Your task to perform on an android device: Show me the alarms in the clock app Image 0: 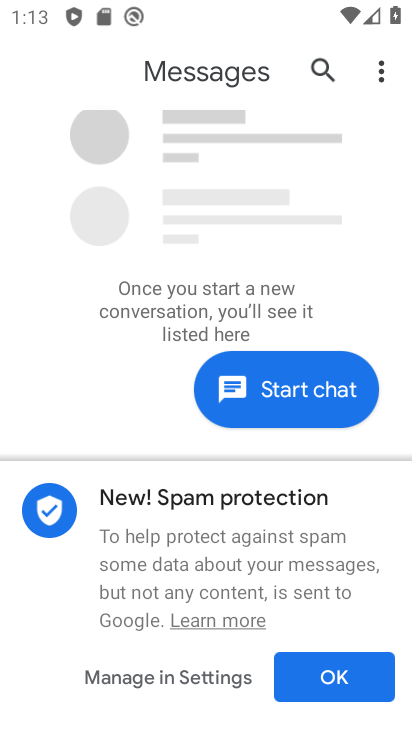
Step 0: press home button
Your task to perform on an android device: Show me the alarms in the clock app Image 1: 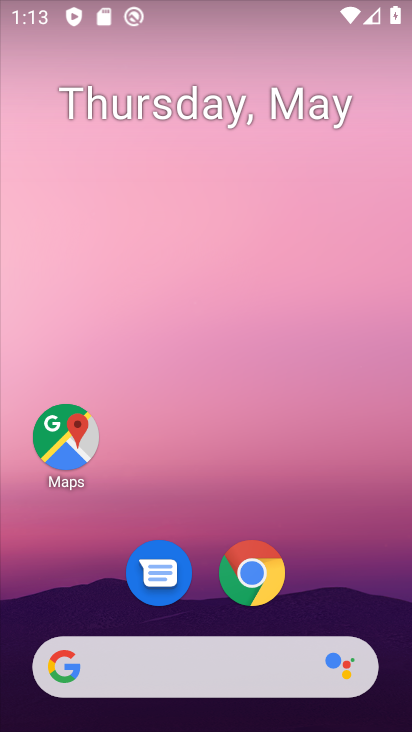
Step 1: drag from (214, 472) to (242, 69)
Your task to perform on an android device: Show me the alarms in the clock app Image 2: 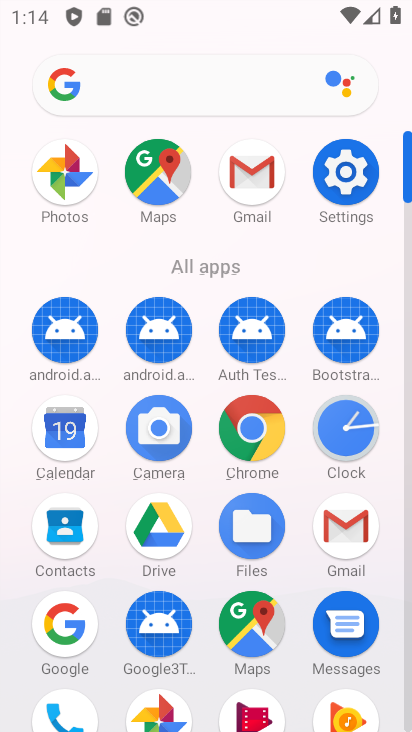
Step 2: click (354, 417)
Your task to perform on an android device: Show me the alarms in the clock app Image 3: 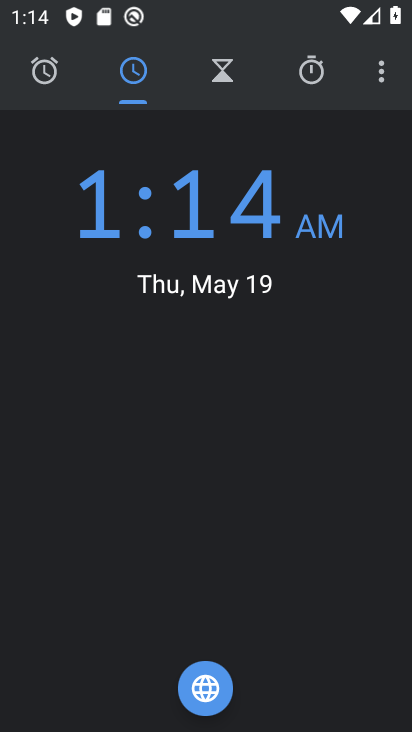
Step 3: click (45, 75)
Your task to perform on an android device: Show me the alarms in the clock app Image 4: 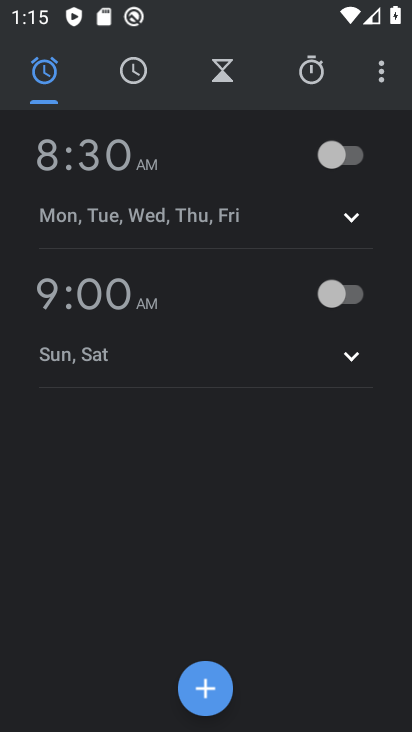
Step 4: task complete